Your task to perform on an android device: Search for seafood restaurants on Google Maps Image 0: 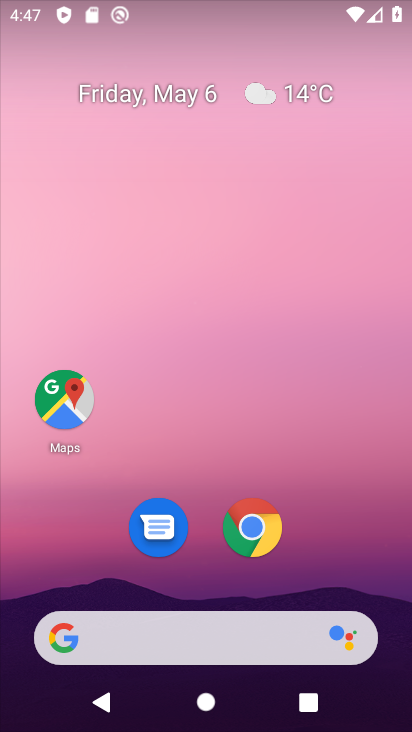
Step 0: drag from (352, 592) to (400, 85)
Your task to perform on an android device: Search for seafood restaurants on Google Maps Image 1: 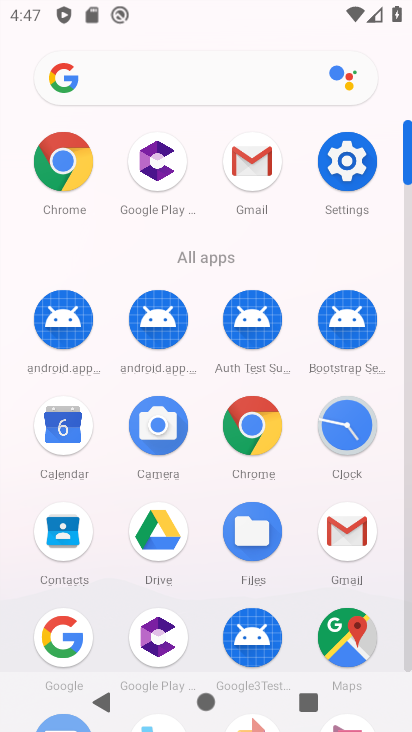
Step 1: click (342, 640)
Your task to perform on an android device: Search for seafood restaurants on Google Maps Image 2: 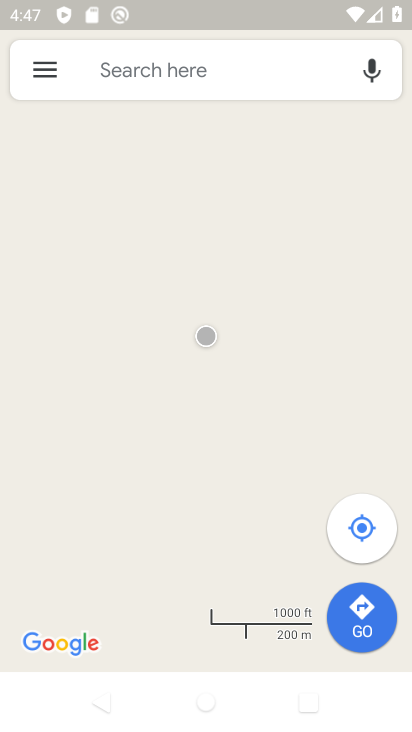
Step 2: click (178, 62)
Your task to perform on an android device: Search for seafood restaurants on Google Maps Image 3: 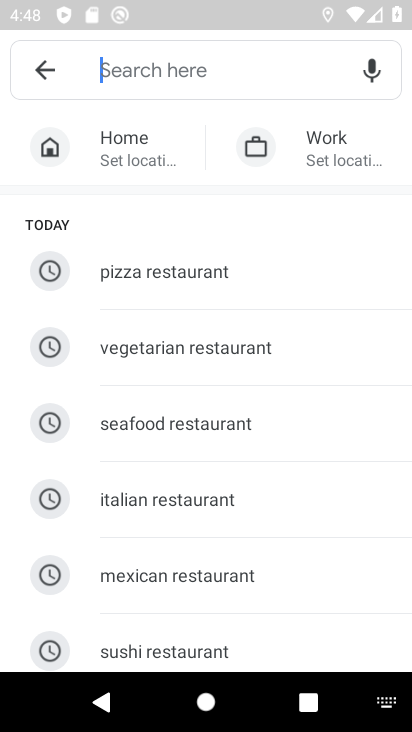
Step 3: type "sea"
Your task to perform on an android device: Search for seafood restaurants on Google Maps Image 4: 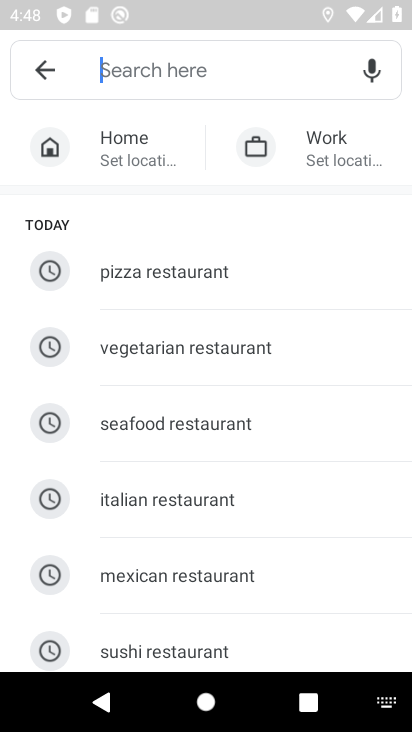
Step 4: click (269, 429)
Your task to perform on an android device: Search for seafood restaurants on Google Maps Image 5: 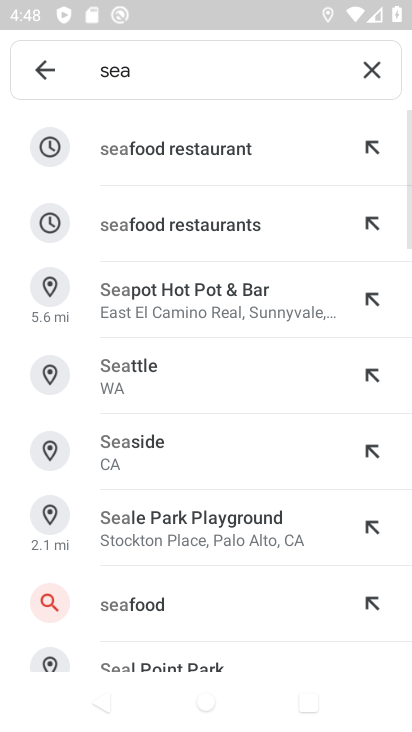
Step 5: click (196, 132)
Your task to perform on an android device: Search for seafood restaurants on Google Maps Image 6: 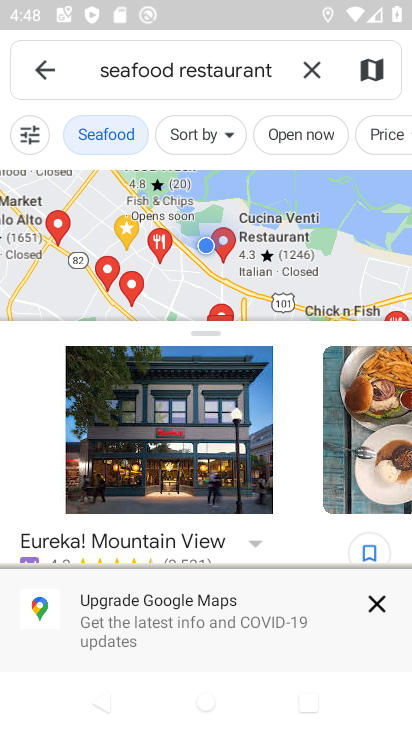
Step 6: task complete